Your task to perform on an android device: turn on improve location accuracy Image 0: 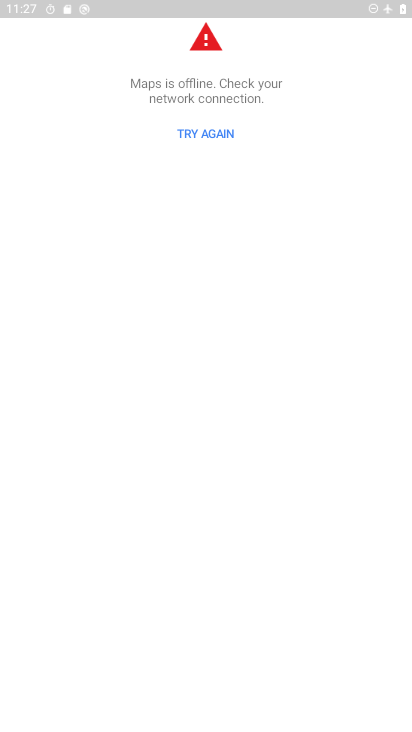
Step 0: press home button
Your task to perform on an android device: turn on improve location accuracy Image 1: 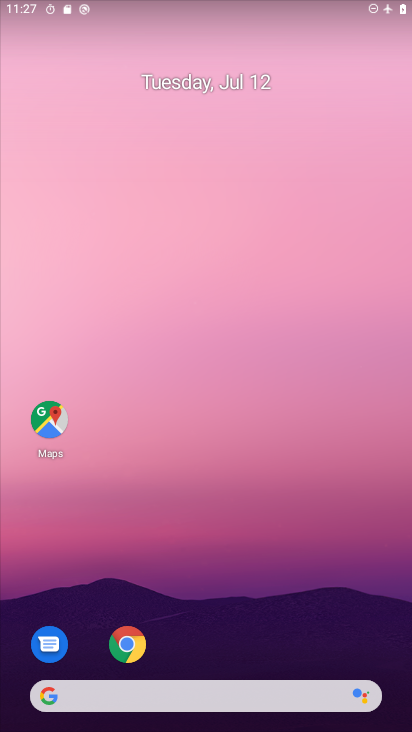
Step 1: drag from (189, 639) to (197, 209)
Your task to perform on an android device: turn on improve location accuracy Image 2: 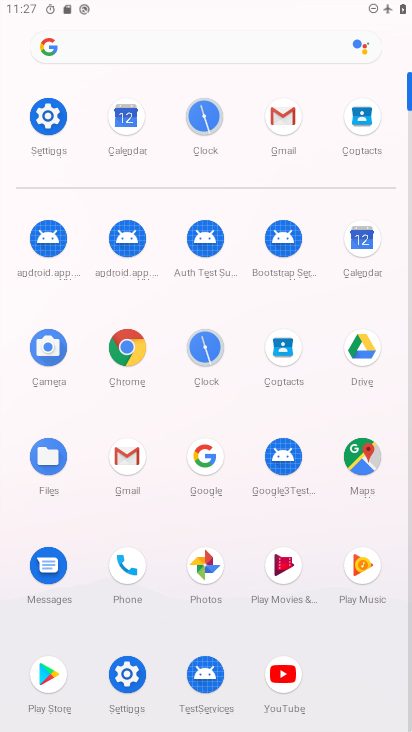
Step 2: click (46, 124)
Your task to perform on an android device: turn on improve location accuracy Image 3: 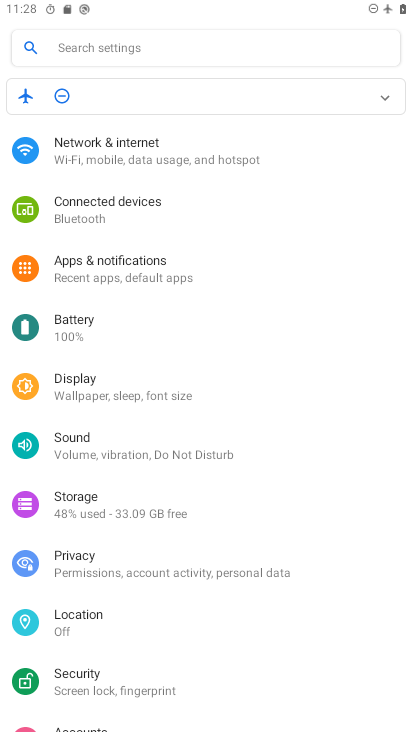
Step 3: click (106, 622)
Your task to perform on an android device: turn on improve location accuracy Image 4: 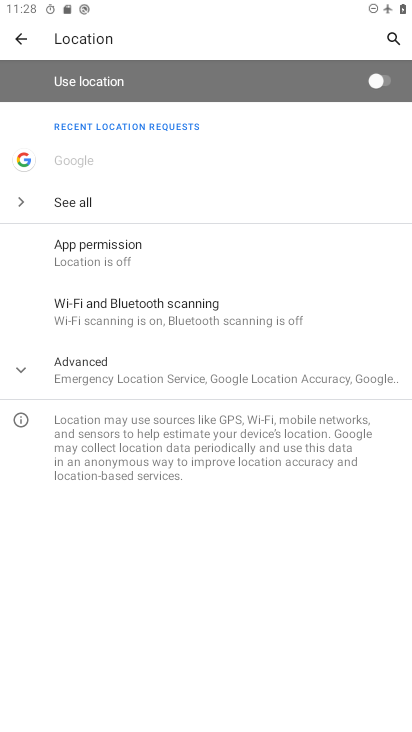
Step 4: click (94, 373)
Your task to perform on an android device: turn on improve location accuracy Image 5: 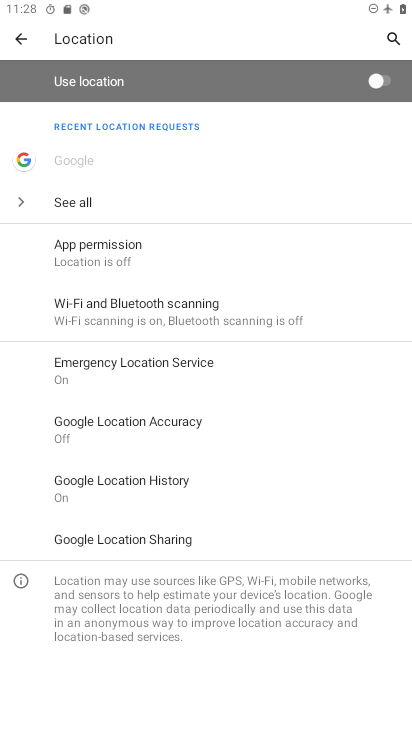
Step 5: click (137, 435)
Your task to perform on an android device: turn on improve location accuracy Image 6: 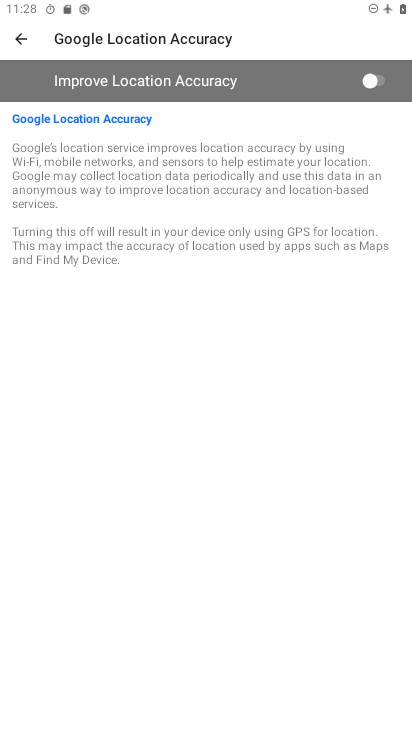
Step 6: click (396, 79)
Your task to perform on an android device: turn on improve location accuracy Image 7: 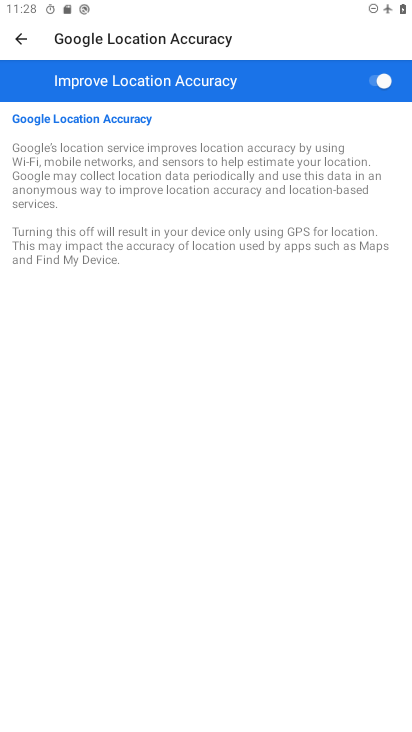
Step 7: task complete